Your task to perform on an android device: Go to Wikipedia Image 0: 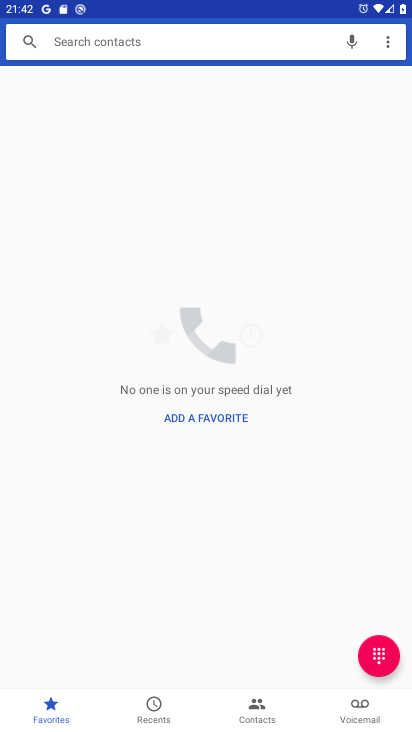
Step 0: press home button
Your task to perform on an android device: Go to Wikipedia Image 1: 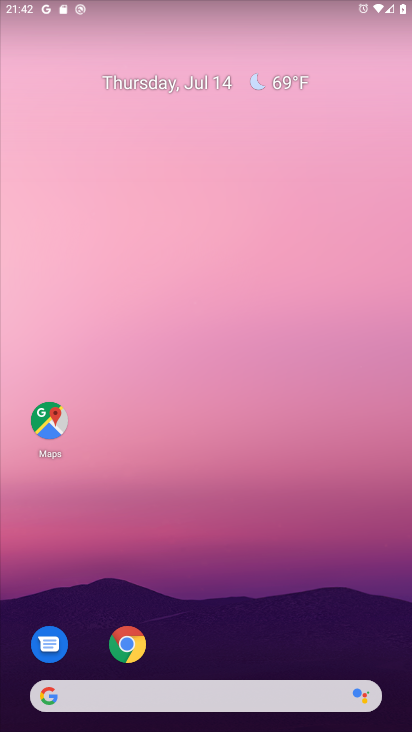
Step 1: click (130, 648)
Your task to perform on an android device: Go to Wikipedia Image 2: 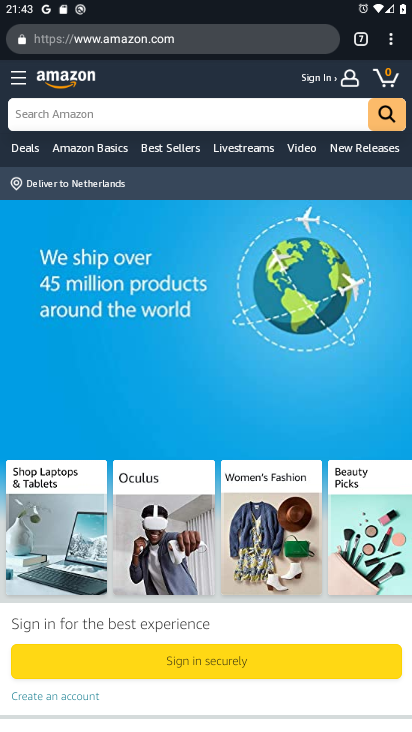
Step 2: click (366, 34)
Your task to perform on an android device: Go to Wikipedia Image 3: 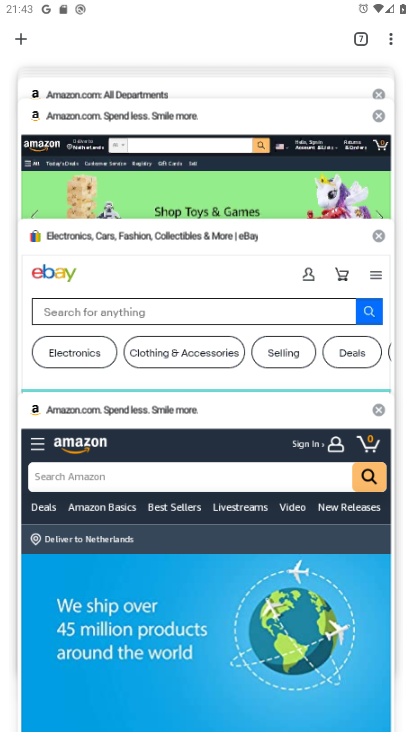
Step 3: click (24, 44)
Your task to perform on an android device: Go to Wikipedia Image 4: 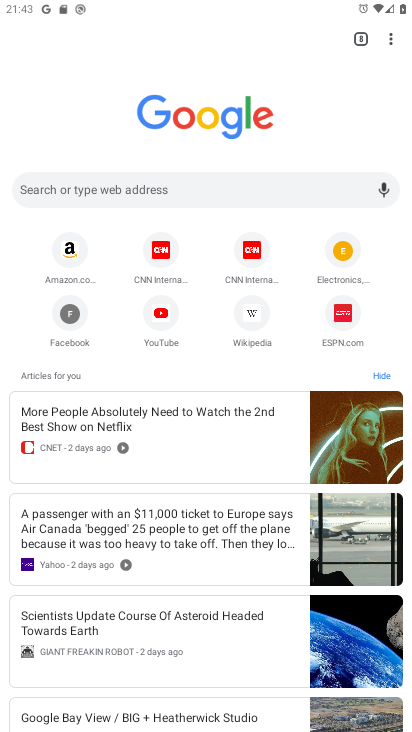
Step 4: click (258, 320)
Your task to perform on an android device: Go to Wikipedia Image 5: 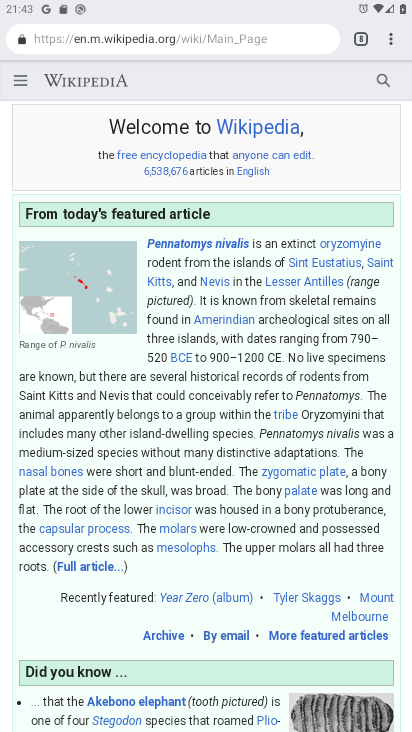
Step 5: task complete